Your task to perform on an android device: Open Reddit.com Image 0: 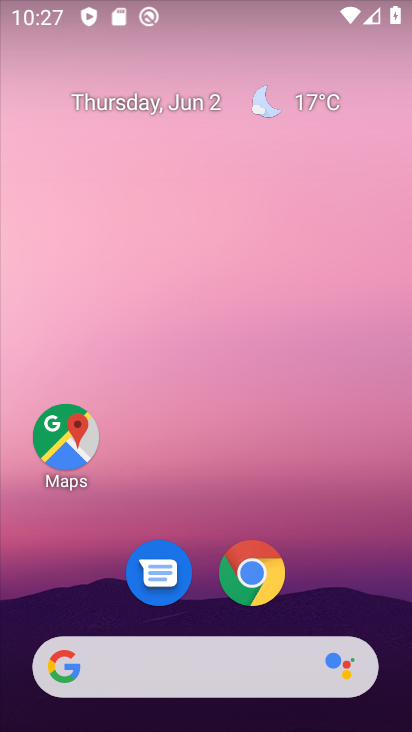
Step 0: task complete